Your task to perform on an android device: find snoozed emails in the gmail app Image 0: 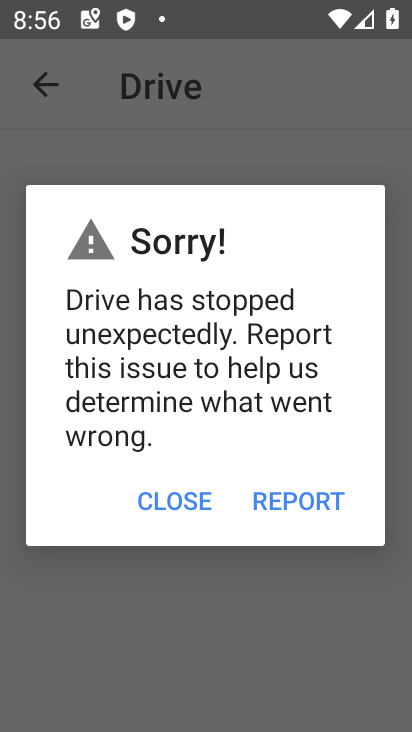
Step 0: press home button
Your task to perform on an android device: find snoozed emails in the gmail app Image 1: 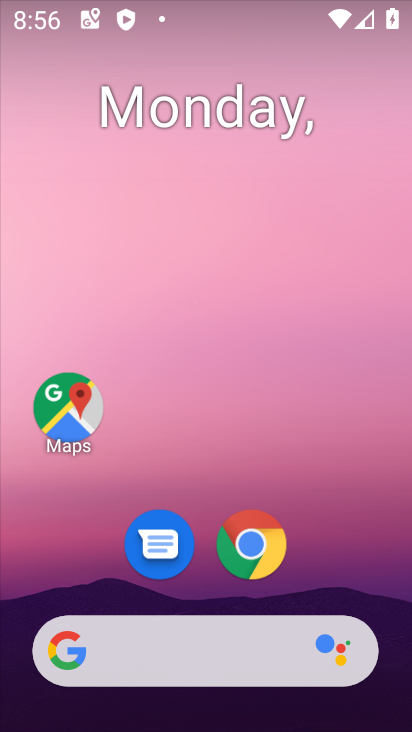
Step 1: drag from (300, 487) to (207, 11)
Your task to perform on an android device: find snoozed emails in the gmail app Image 2: 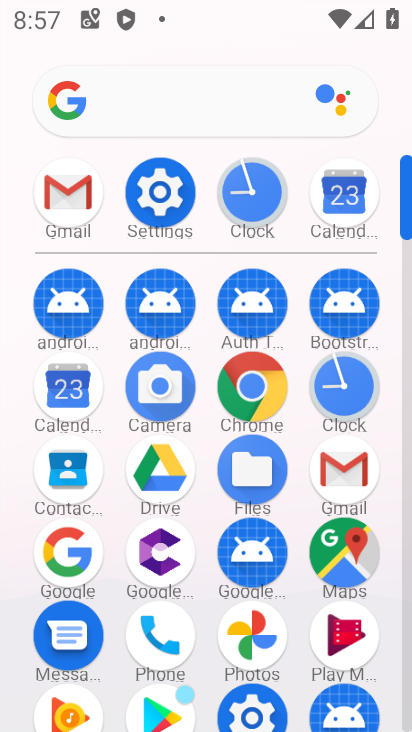
Step 2: click (63, 199)
Your task to perform on an android device: find snoozed emails in the gmail app Image 3: 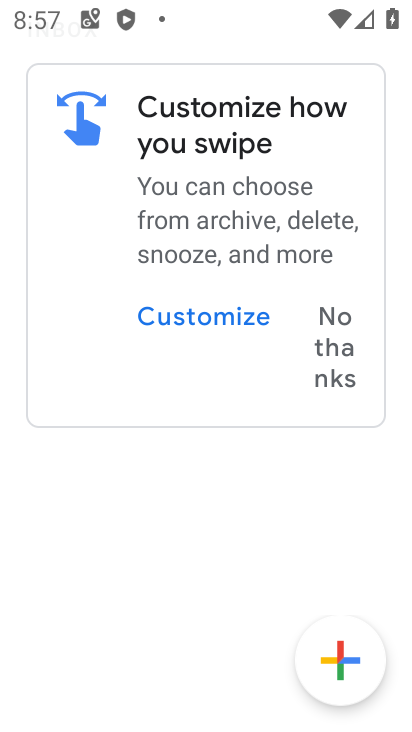
Step 3: click (330, 331)
Your task to perform on an android device: find snoozed emails in the gmail app Image 4: 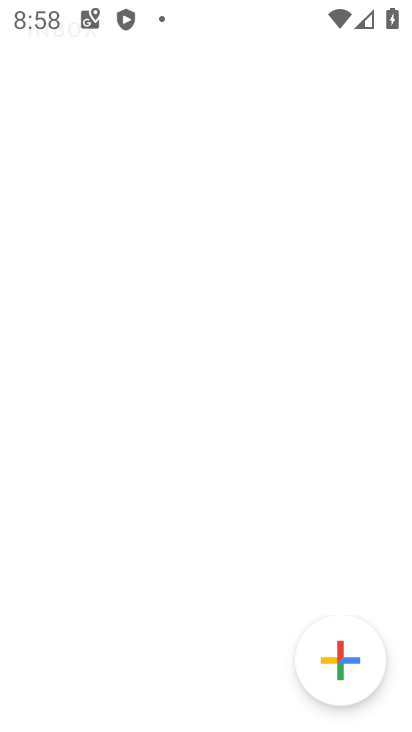
Step 4: task complete